Your task to perform on an android device: What's the weather? Image 0: 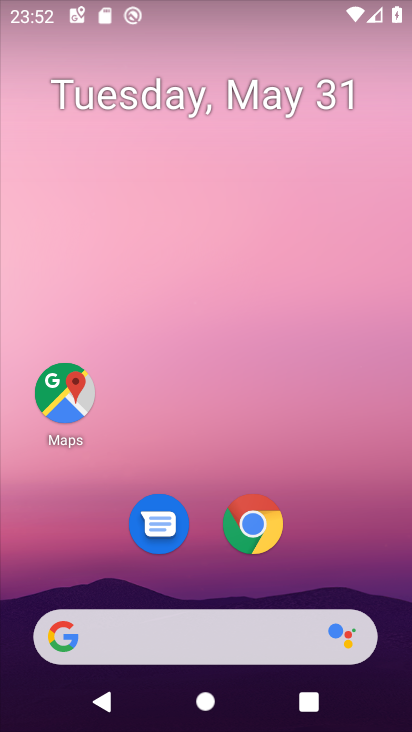
Step 0: click (196, 638)
Your task to perform on an android device: What's the weather? Image 1: 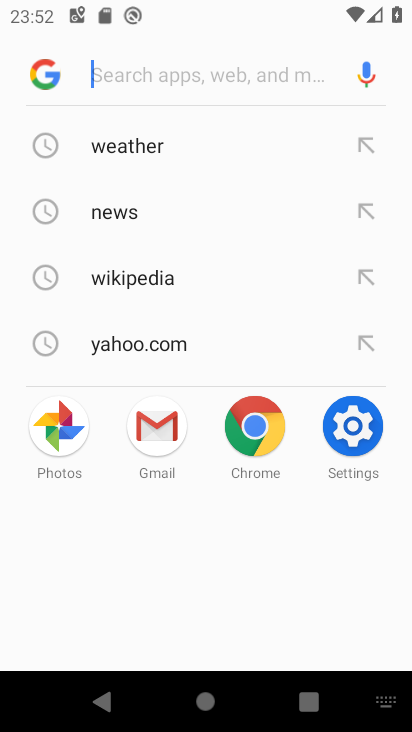
Step 1: click (133, 150)
Your task to perform on an android device: What's the weather? Image 2: 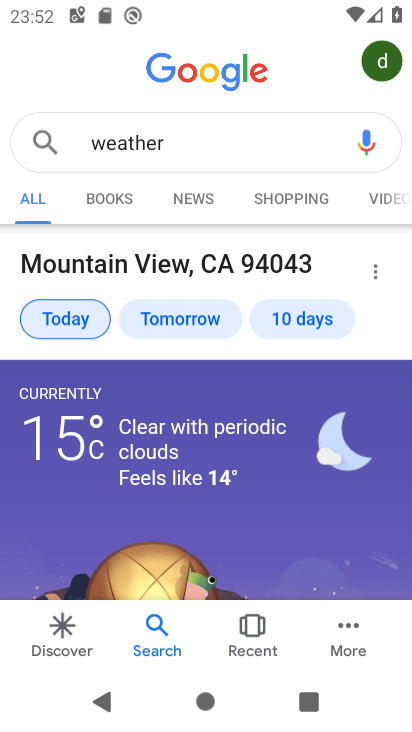
Step 2: click (67, 320)
Your task to perform on an android device: What's the weather? Image 3: 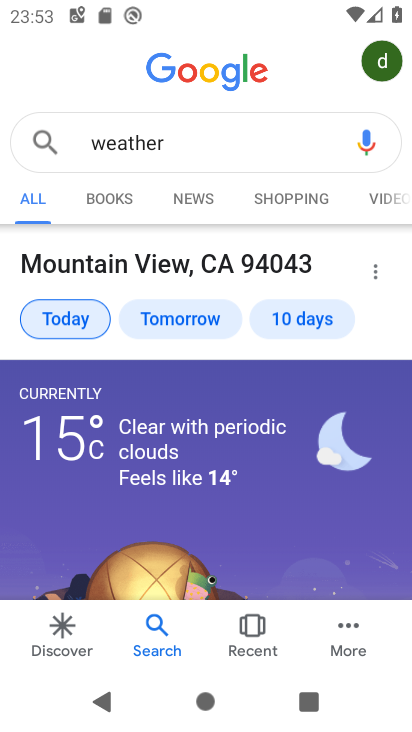
Step 3: click (67, 317)
Your task to perform on an android device: What's the weather? Image 4: 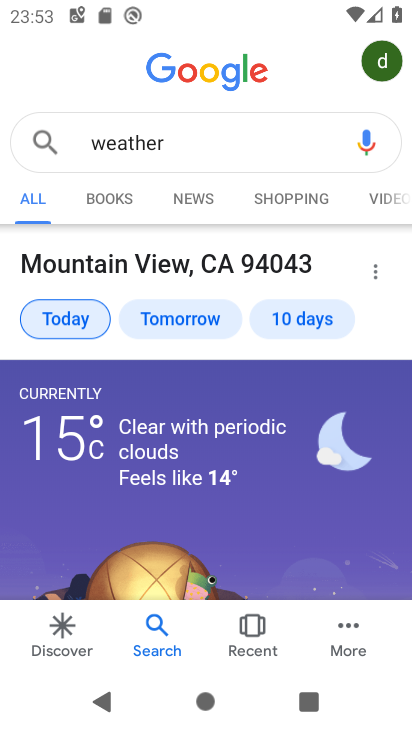
Step 4: click (88, 309)
Your task to perform on an android device: What's the weather? Image 5: 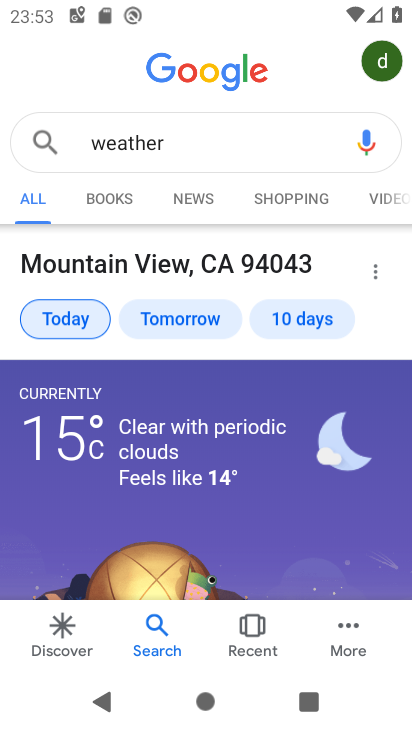
Step 5: drag from (200, 528) to (253, 276)
Your task to perform on an android device: What's the weather? Image 6: 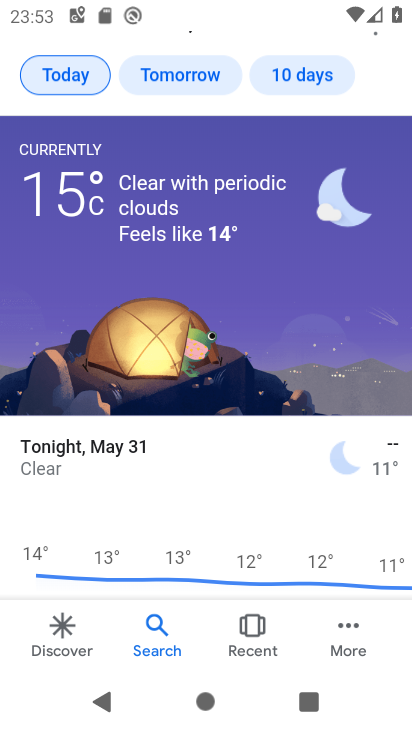
Step 6: click (80, 70)
Your task to perform on an android device: What's the weather? Image 7: 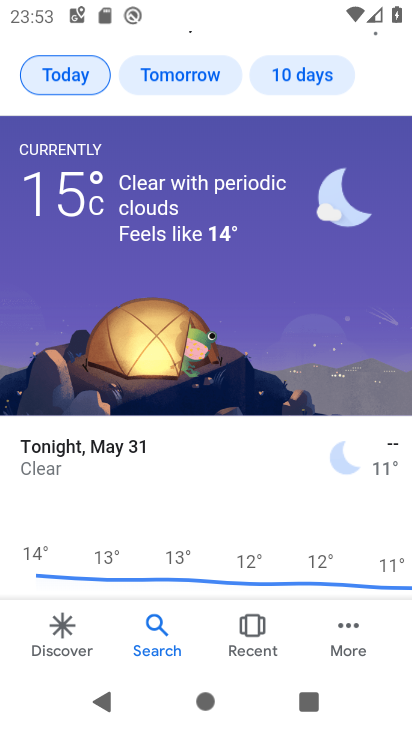
Step 7: click (72, 71)
Your task to perform on an android device: What's the weather? Image 8: 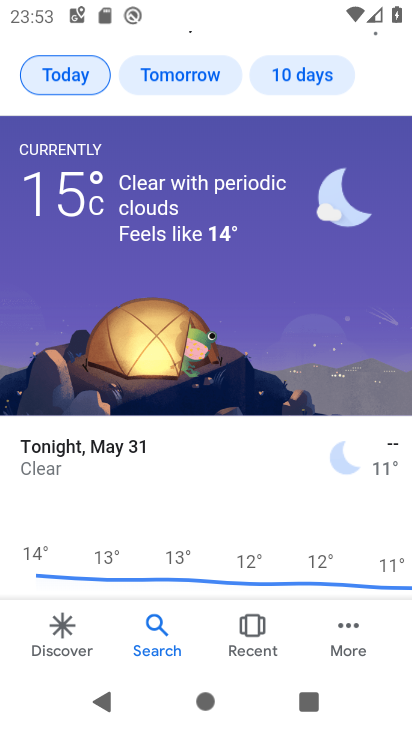
Step 8: drag from (266, 236) to (252, 593)
Your task to perform on an android device: What's the weather? Image 9: 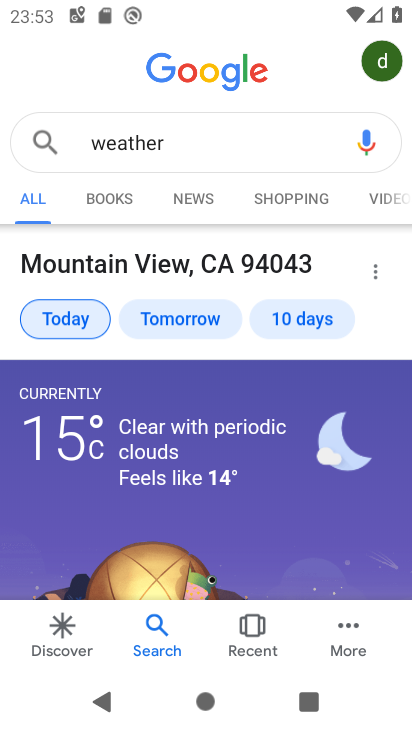
Step 9: click (67, 318)
Your task to perform on an android device: What's the weather? Image 10: 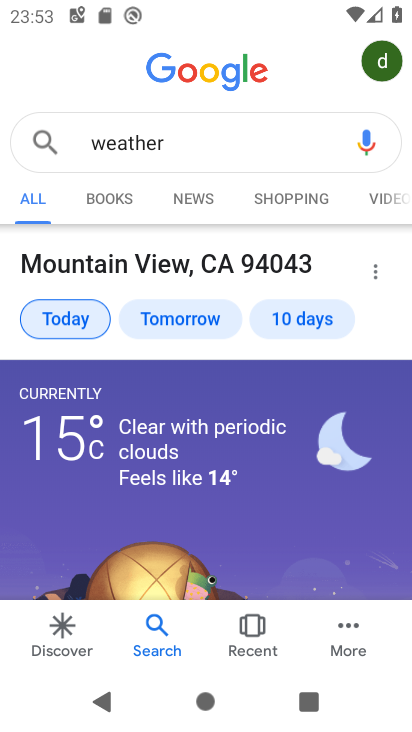
Step 10: click (67, 318)
Your task to perform on an android device: What's the weather? Image 11: 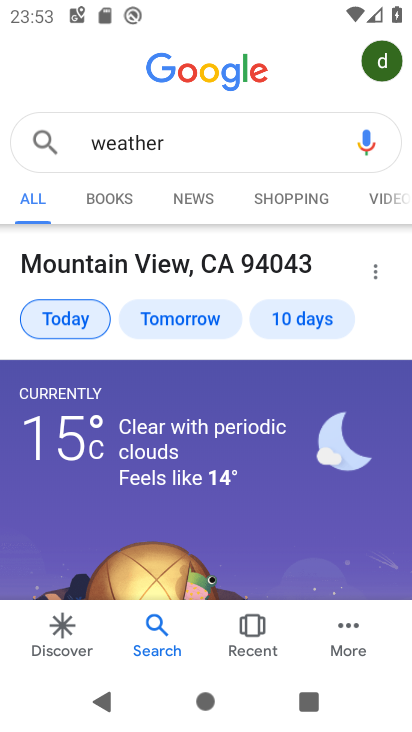
Step 11: task complete